Your task to perform on an android device: Go to CNN.com Image 0: 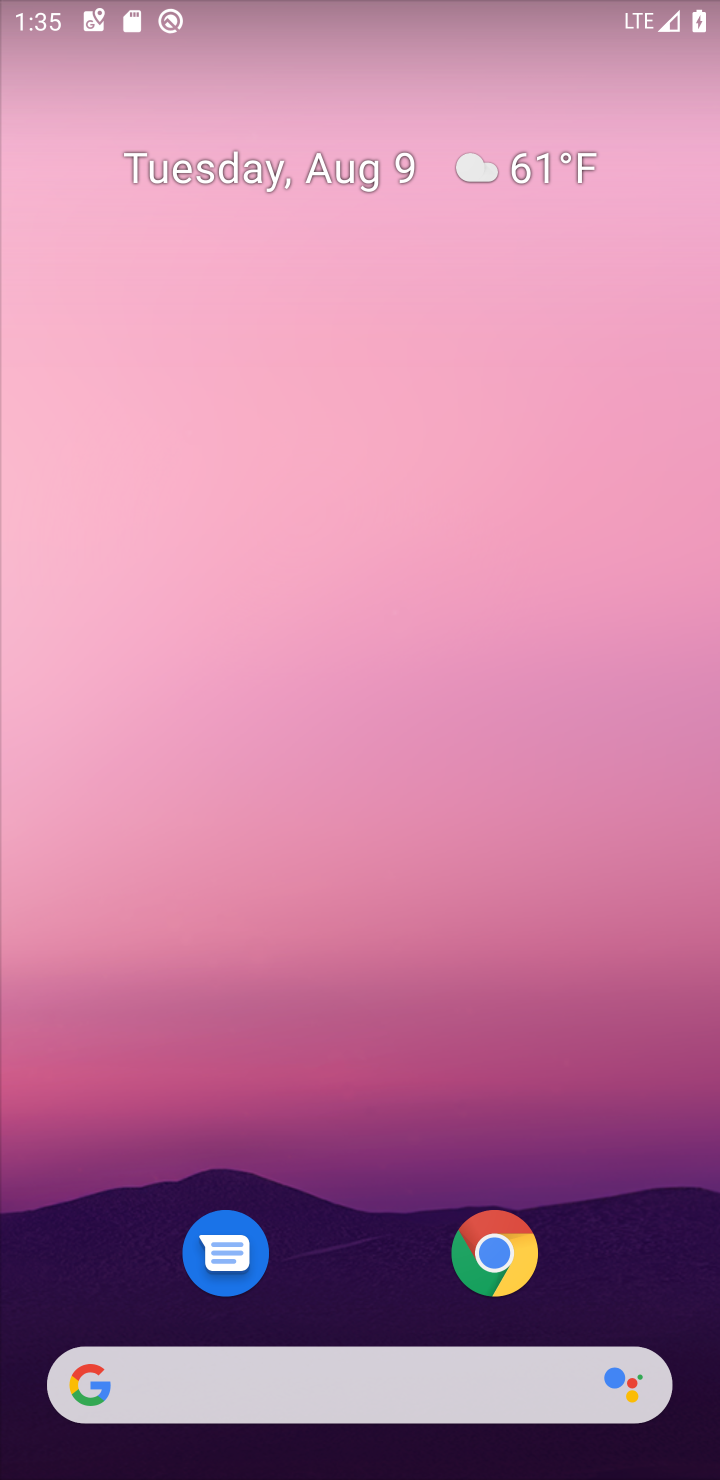
Step 0: drag from (652, 1259) to (139, 73)
Your task to perform on an android device: Go to CNN.com Image 1: 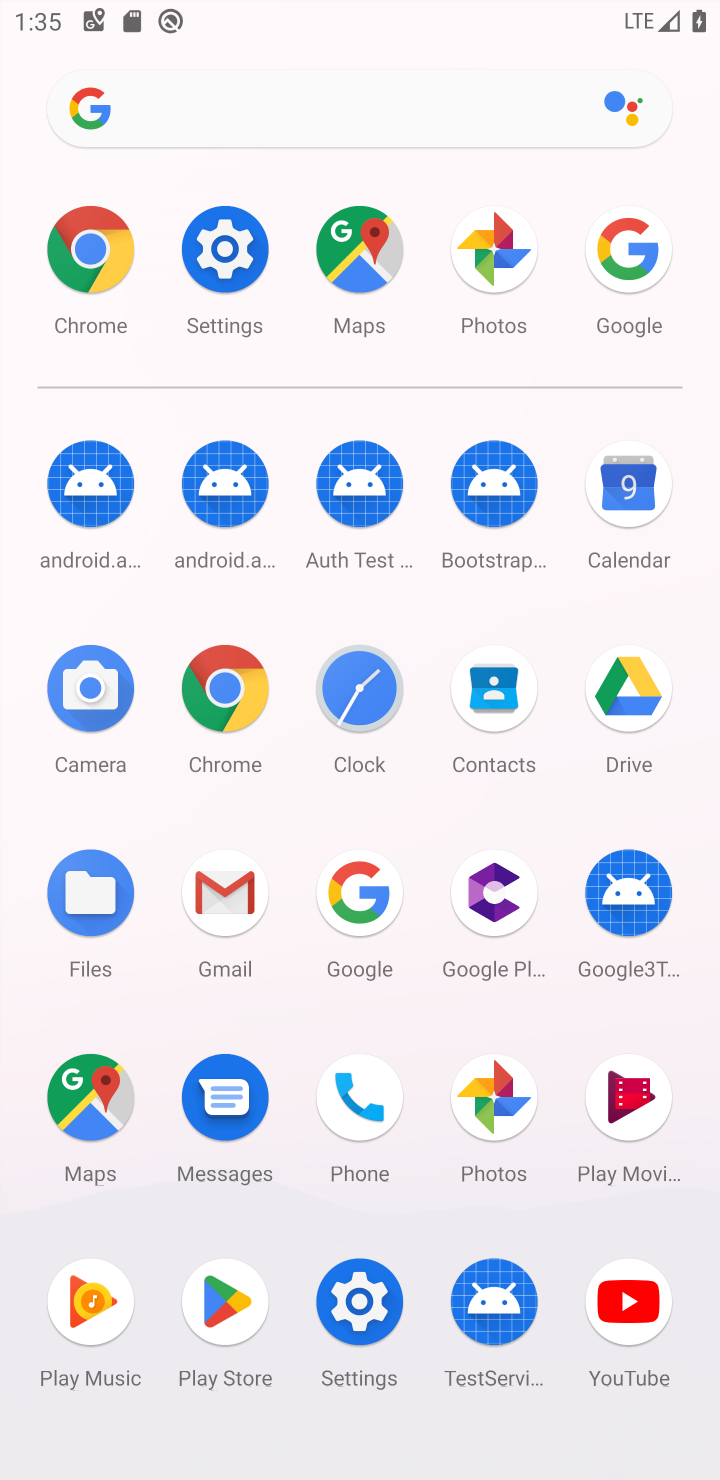
Step 1: click (370, 915)
Your task to perform on an android device: Go to CNN.com Image 2: 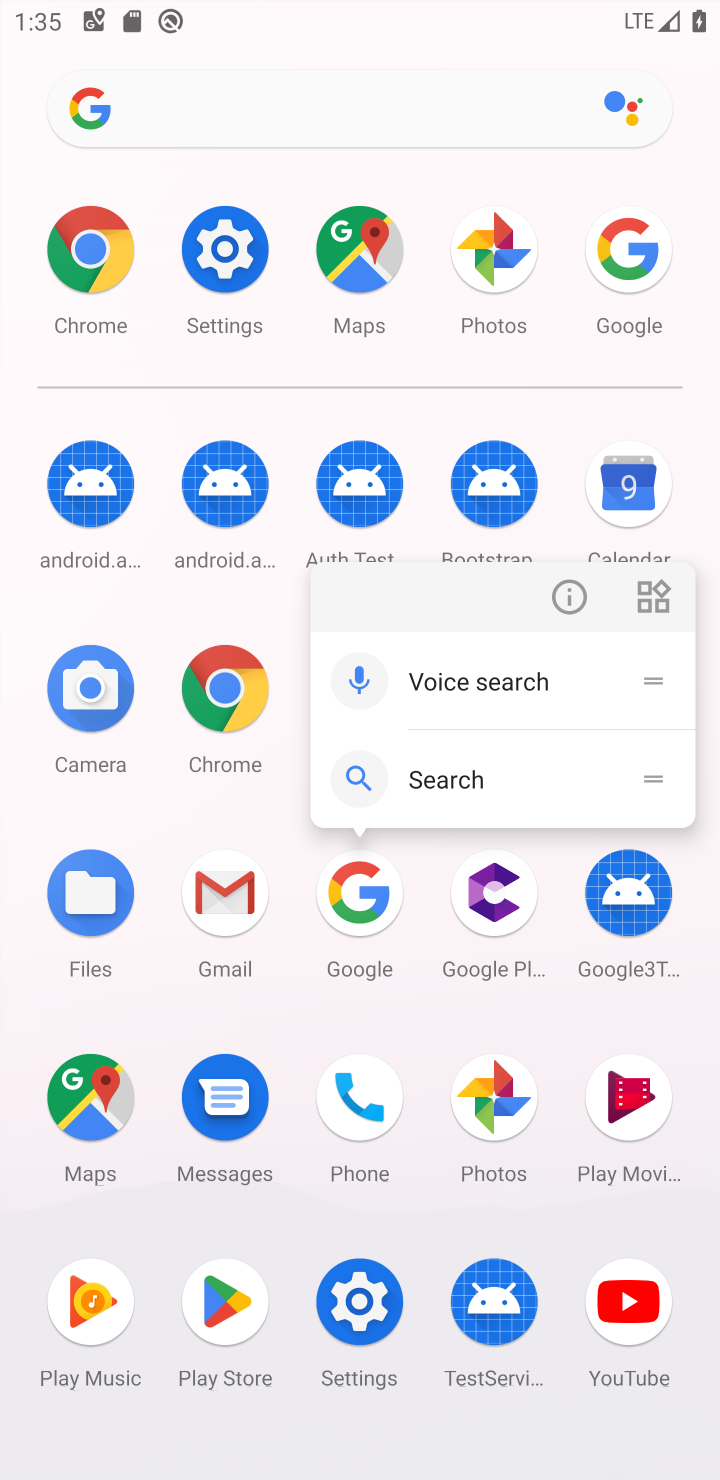
Step 2: click (370, 913)
Your task to perform on an android device: Go to CNN.com Image 3: 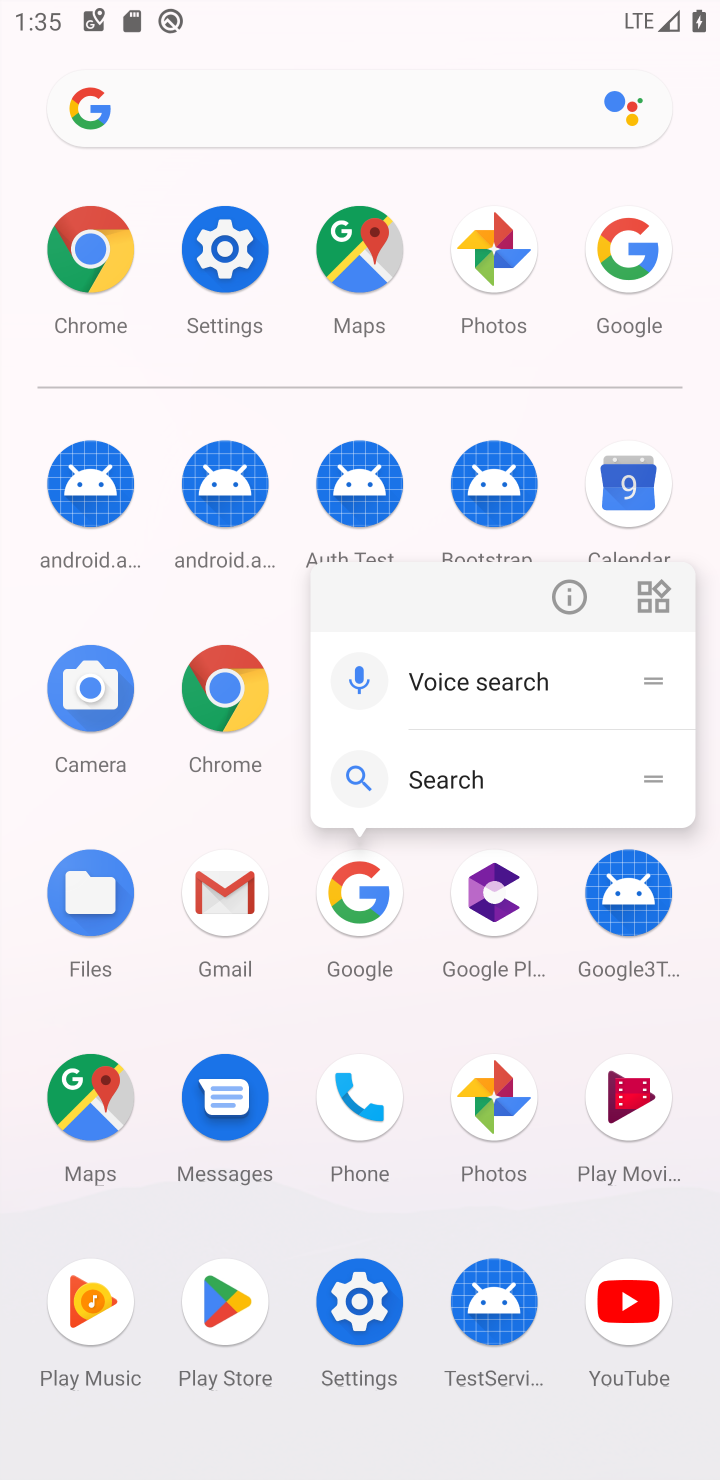
Step 3: click (370, 913)
Your task to perform on an android device: Go to CNN.com Image 4: 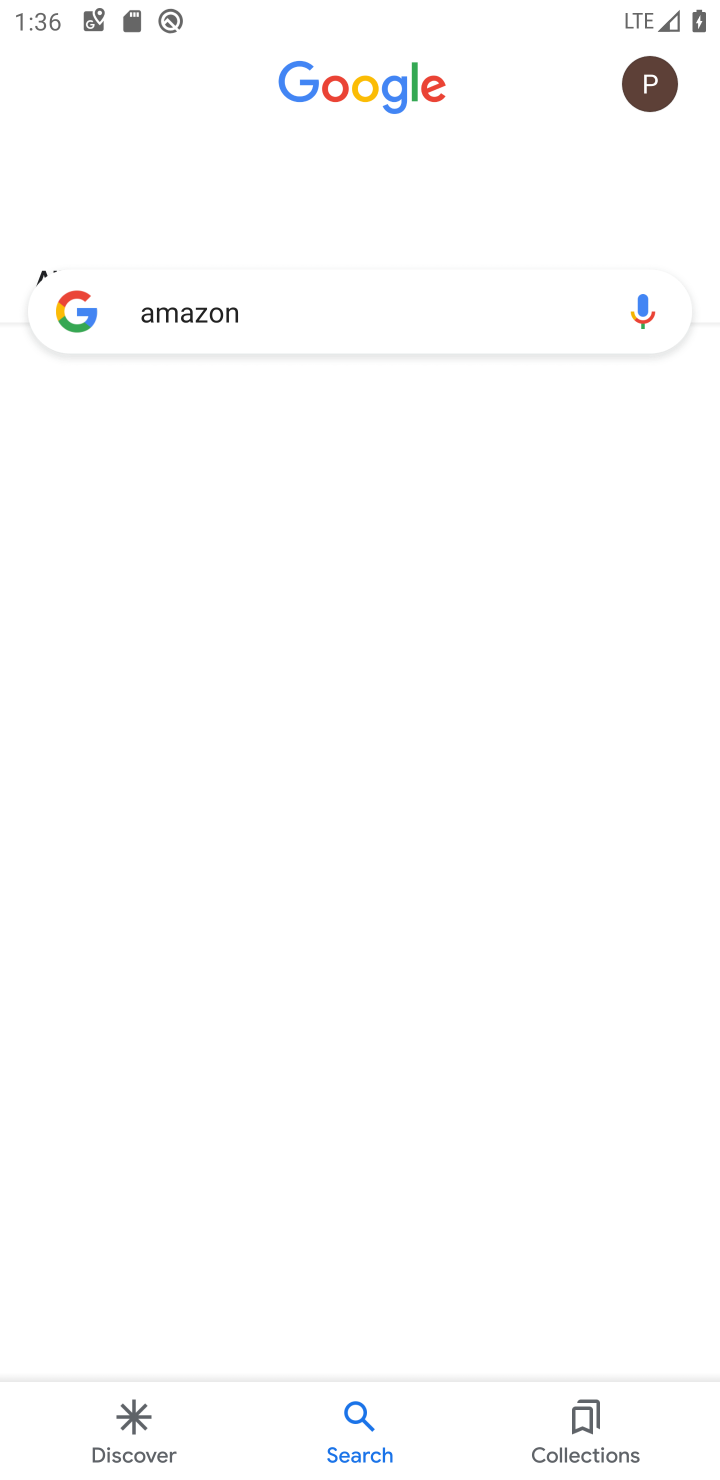
Step 4: press back button
Your task to perform on an android device: Go to CNN.com Image 5: 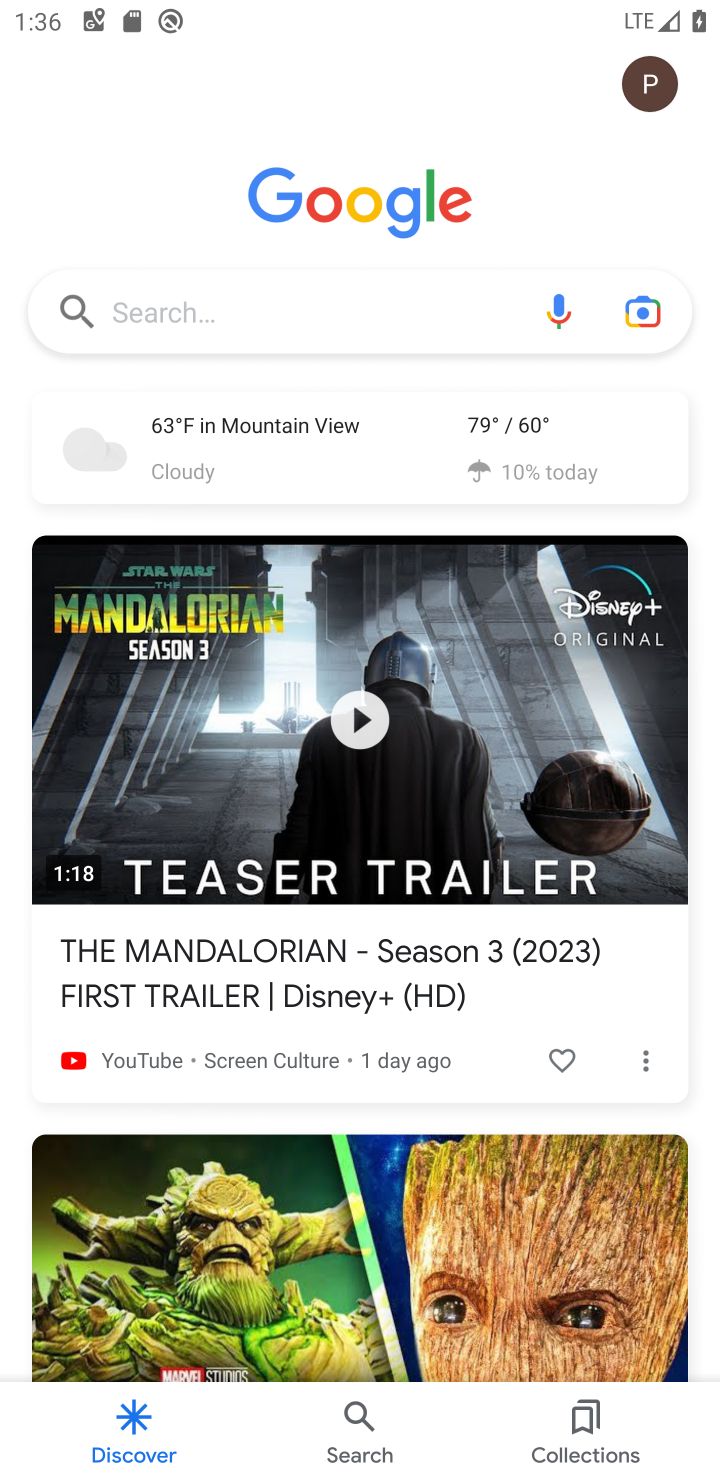
Step 5: click (181, 292)
Your task to perform on an android device: Go to CNN.com Image 6: 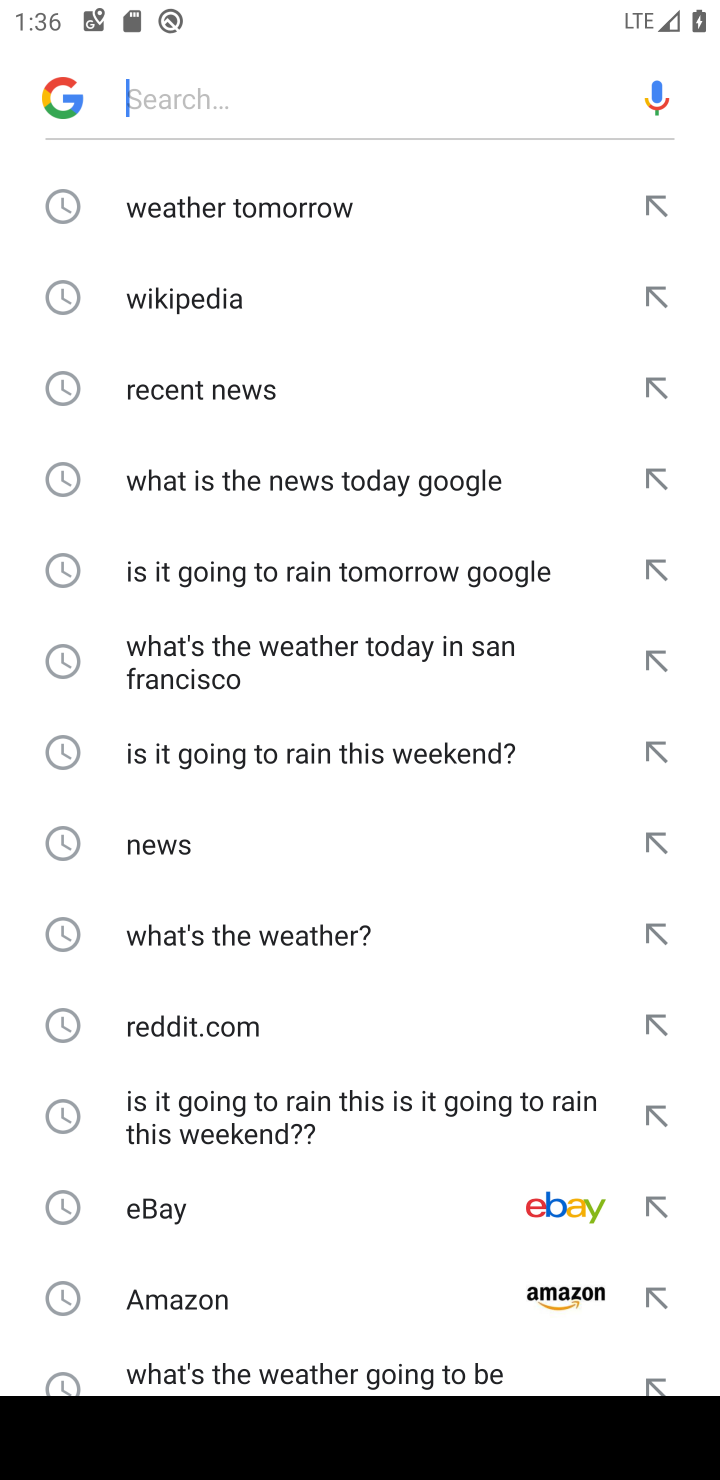
Step 6: type "CNN.com"
Your task to perform on an android device: Go to CNN.com Image 7: 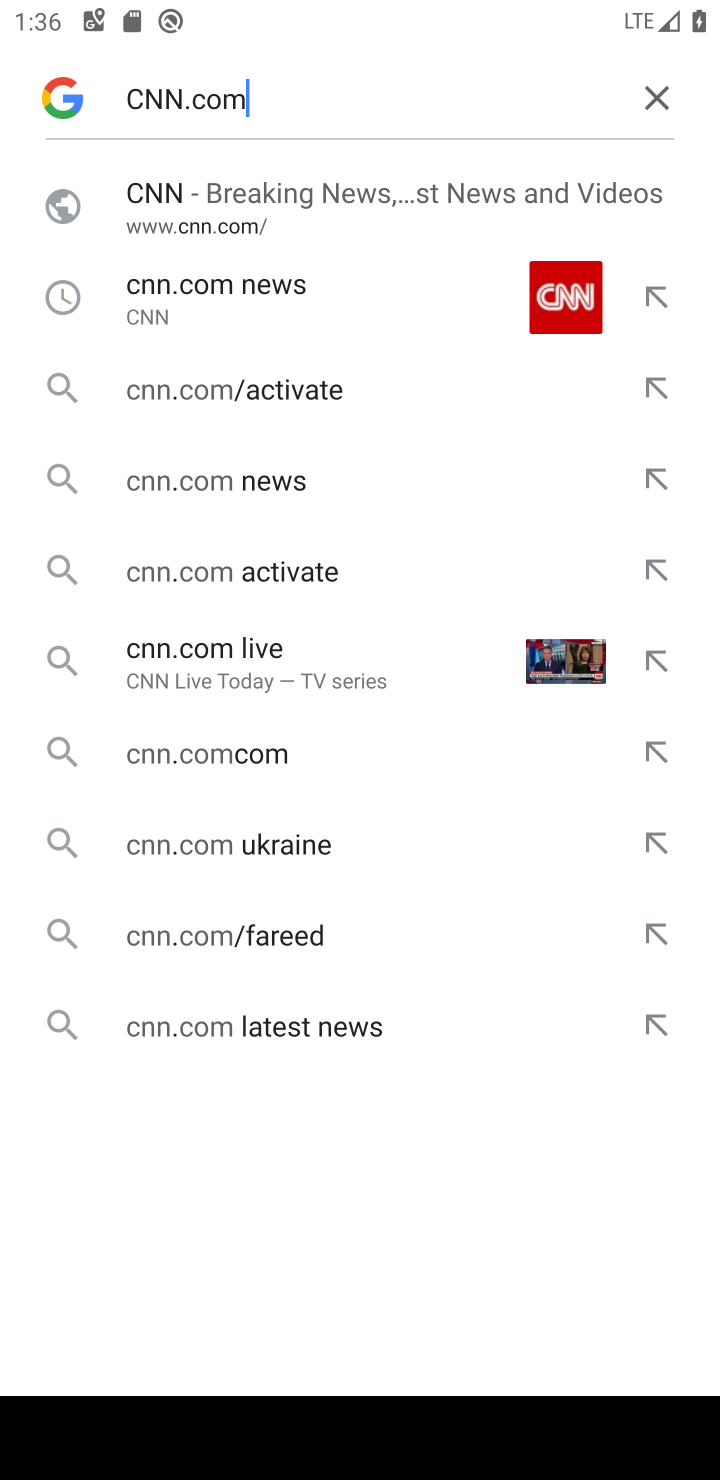
Step 7: click (261, 189)
Your task to perform on an android device: Go to CNN.com Image 8: 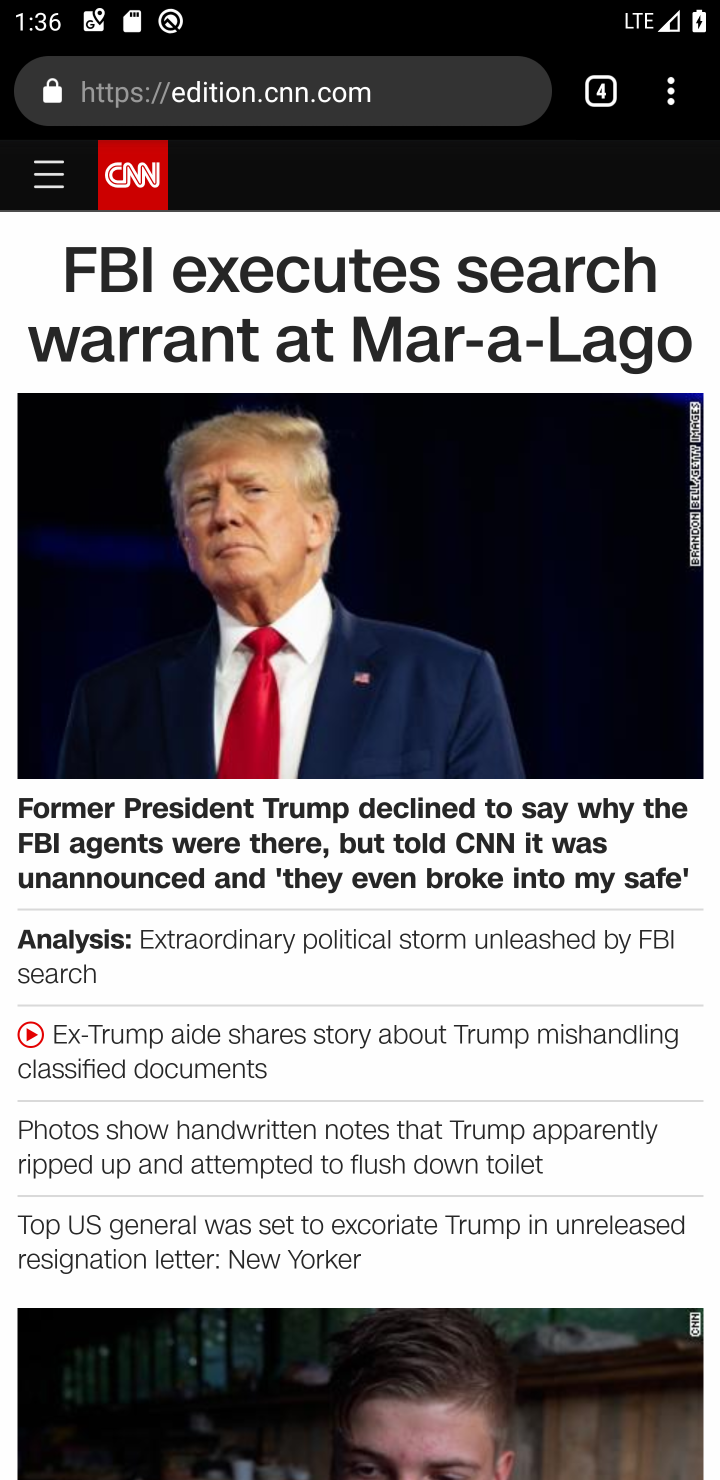
Step 8: task complete